Your task to perform on an android device: visit the assistant section in the google photos Image 0: 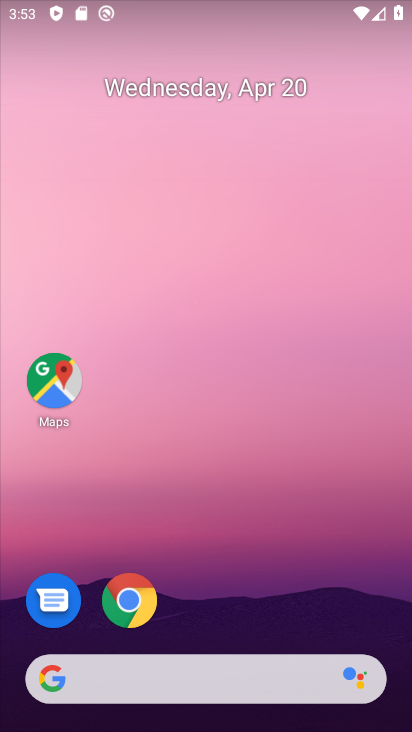
Step 0: drag from (226, 192) to (231, 55)
Your task to perform on an android device: visit the assistant section in the google photos Image 1: 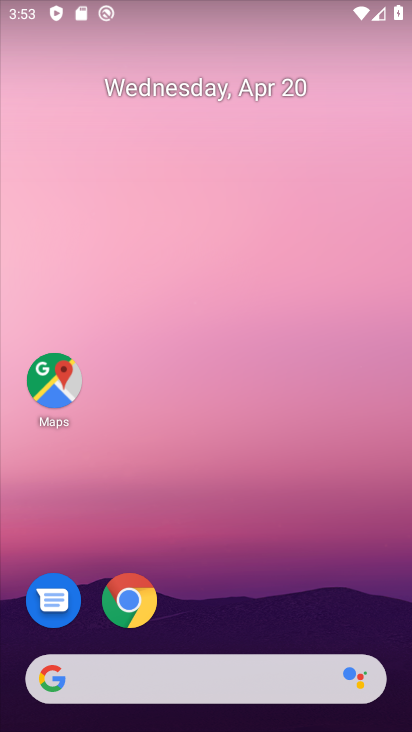
Step 1: drag from (207, 623) to (246, 150)
Your task to perform on an android device: visit the assistant section in the google photos Image 2: 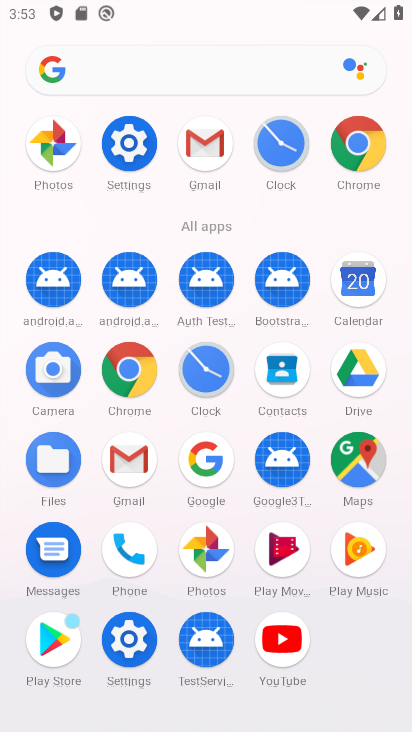
Step 2: click (213, 539)
Your task to perform on an android device: visit the assistant section in the google photos Image 3: 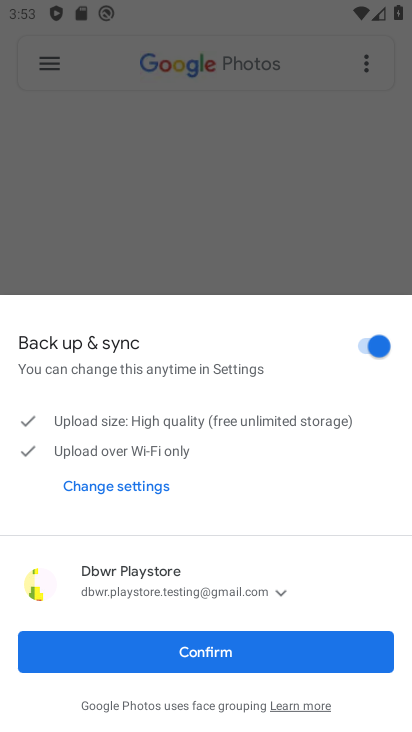
Step 3: click (233, 647)
Your task to perform on an android device: visit the assistant section in the google photos Image 4: 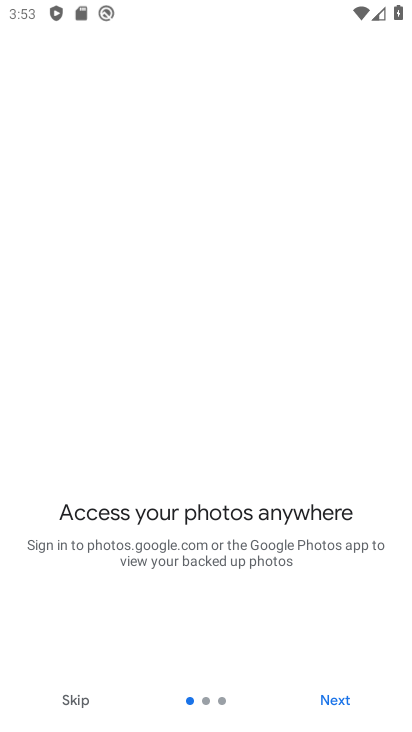
Step 4: click (334, 703)
Your task to perform on an android device: visit the assistant section in the google photos Image 5: 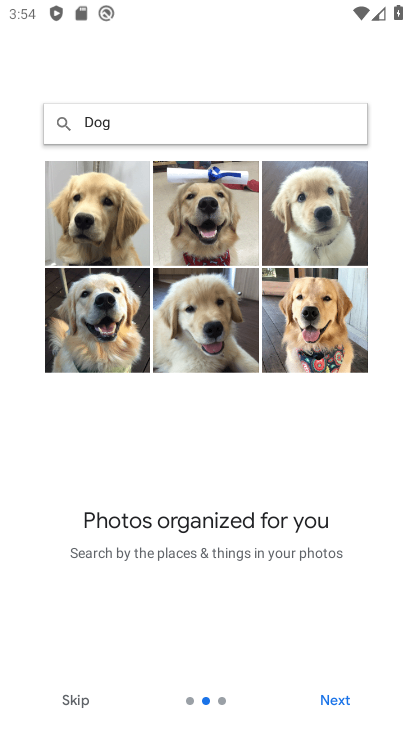
Step 5: click (336, 705)
Your task to perform on an android device: visit the assistant section in the google photos Image 6: 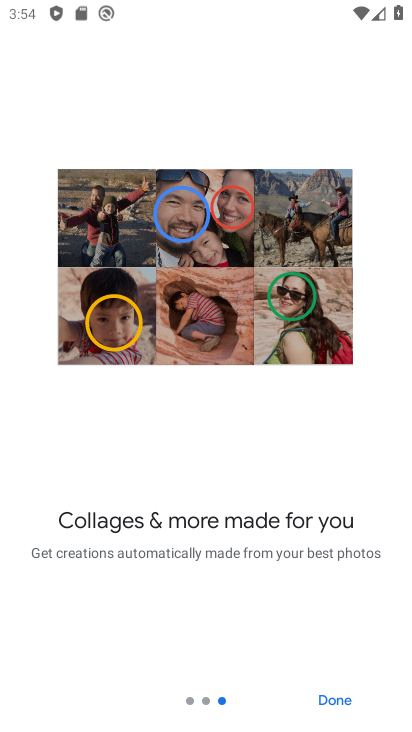
Step 6: click (338, 703)
Your task to perform on an android device: visit the assistant section in the google photos Image 7: 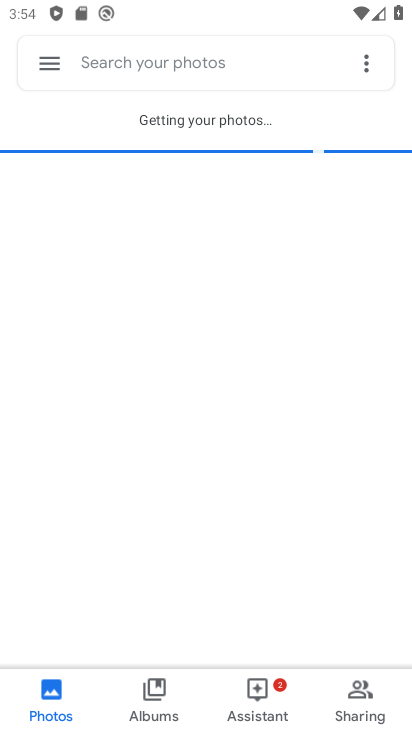
Step 7: click (261, 688)
Your task to perform on an android device: visit the assistant section in the google photos Image 8: 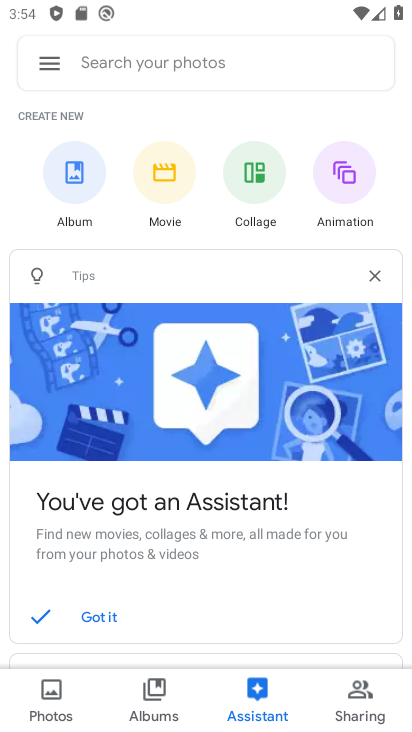
Step 8: task complete